Your task to perform on an android device: allow cookies in the chrome app Image 0: 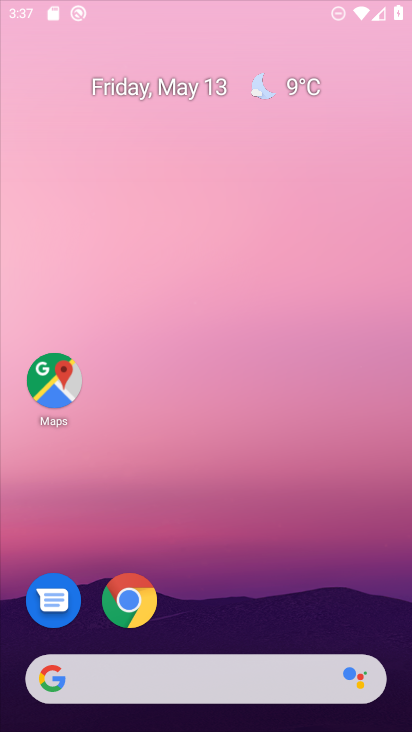
Step 0: drag from (175, 626) to (274, 177)
Your task to perform on an android device: allow cookies in the chrome app Image 1: 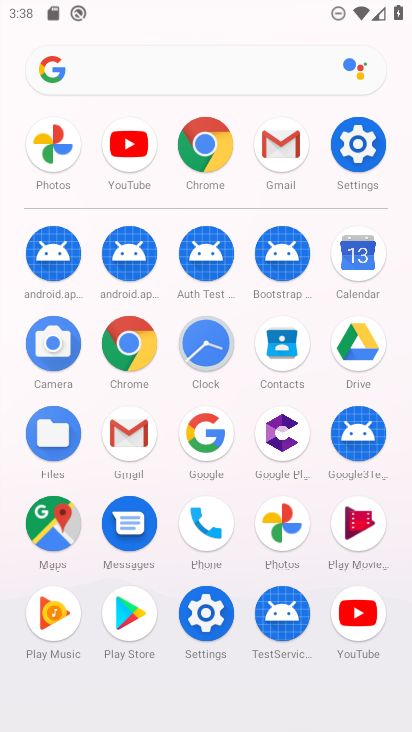
Step 1: click (130, 342)
Your task to perform on an android device: allow cookies in the chrome app Image 2: 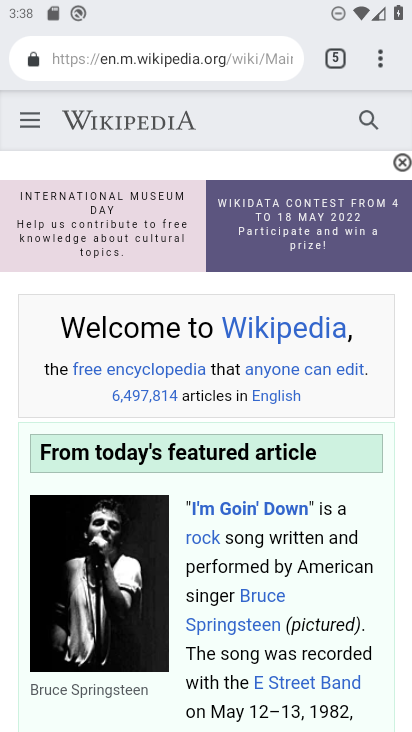
Step 2: drag from (379, 67) to (243, 640)
Your task to perform on an android device: allow cookies in the chrome app Image 3: 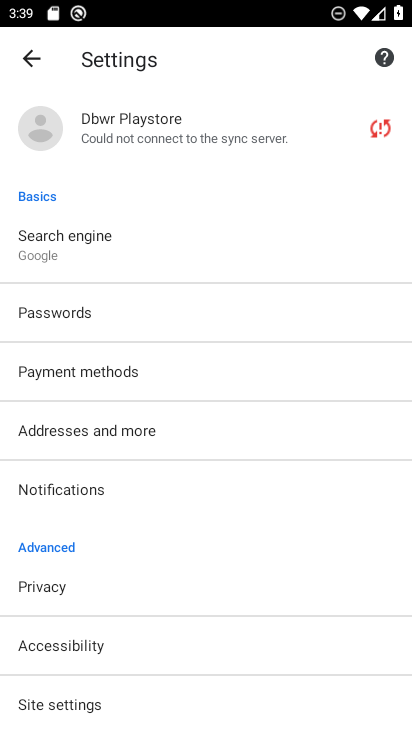
Step 3: drag from (192, 590) to (306, 152)
Your task to perform on an android device: allow cookies in the chrome app Image 4: 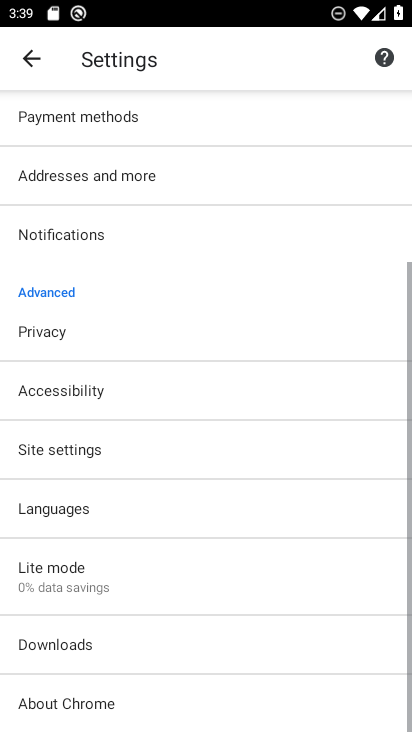
Step 4: click (90, 450)
Your task to perform on an android device: allow cookies in the chrome app Image 5: 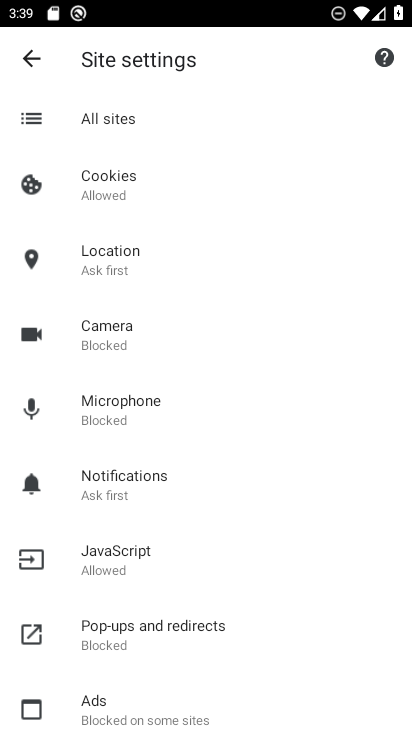
Step 5: click (145, 171)
Your task to perform on an android device: allow cookies in the chrome app Image 6: 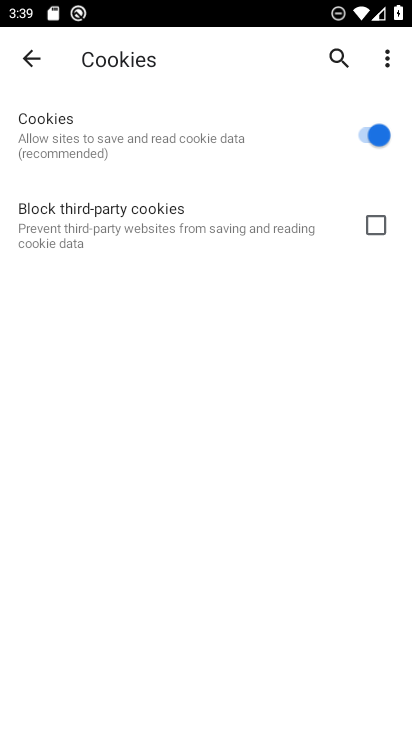
Step 6: task complete